Your task to perform on an android device: choose inbox layout in the gmail app Image 0: 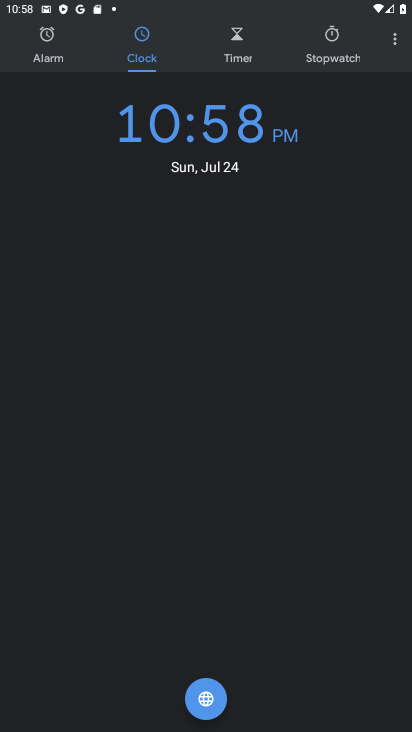
Step 0: press home button
Your task to perform on an android device: choose inbox layout in the gmail app Image 1: 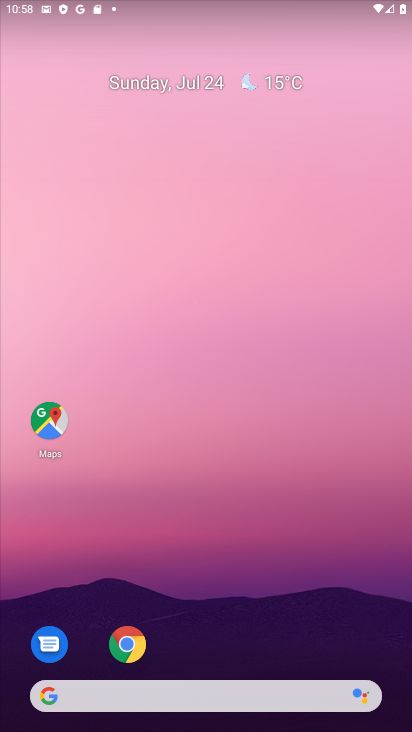
Step 1: drag from (224, 721) to (222, 68)
Your task to perform on an android device: choose inbox layout in the gmail app Image 2: 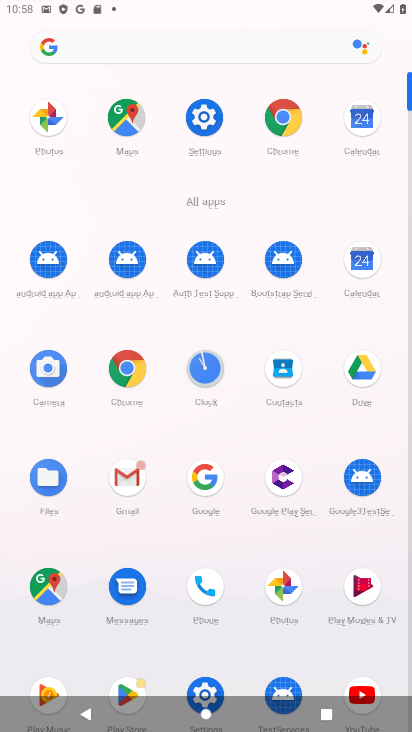
Step 2: click (125, 474)
Your task to perform on an android device: choose inbox layout in the gmail app Image 3: 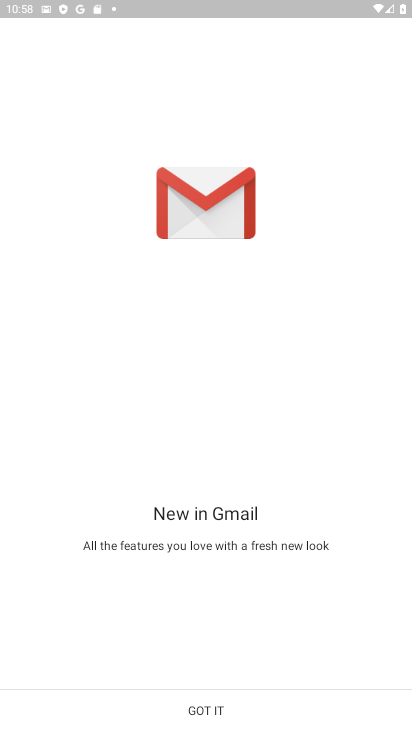
Step 3: click (203, 709)
Your task to perform on an android device: choose inbox layout in the gmail app Image 4: 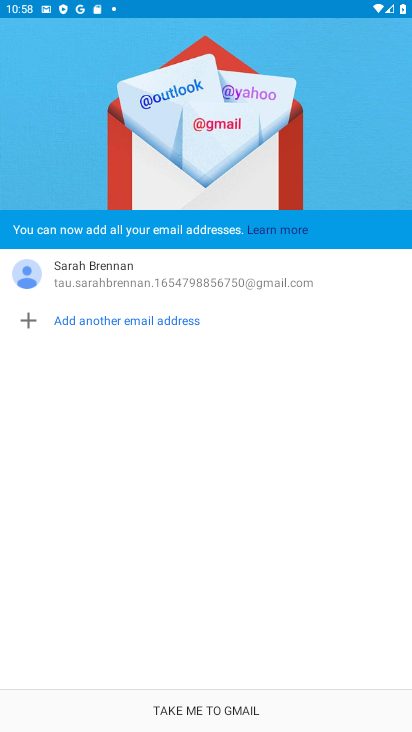
Step 4: click (201, 707)
Your task to perform on an android device: choose inbox layout in the gmail app Image 5: 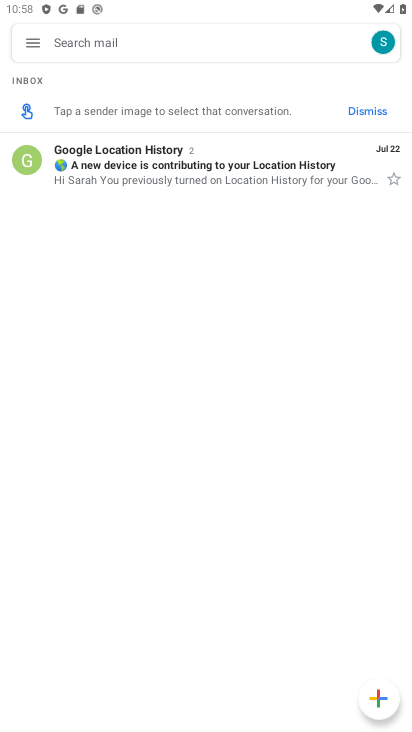
Step 5: click (34, 34)
Your task to perform on an android device: choose inbox layout in the gmail app Image 6: 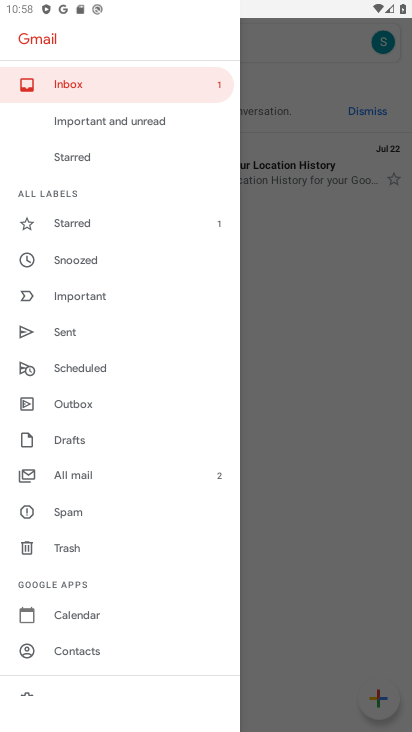
Step 6: drag from (76, 633) to (70, 319)
Your task to perform on an android device: choose inbox layout in the gmail app Image 7: 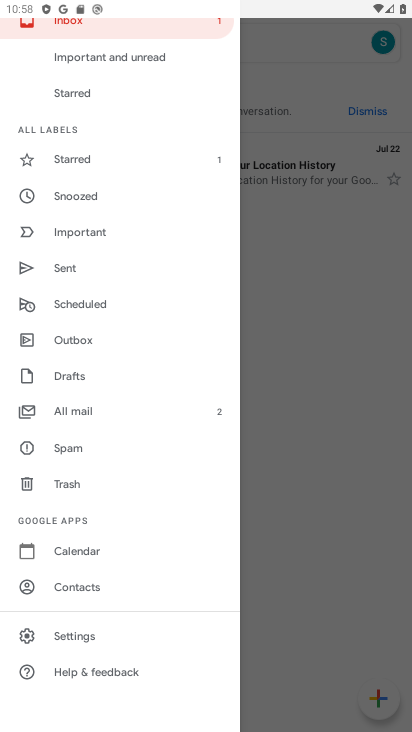
Step 7: click (59, 631)
Your task to perform on an android device: choose inbox layout in the gmail app Image 8: 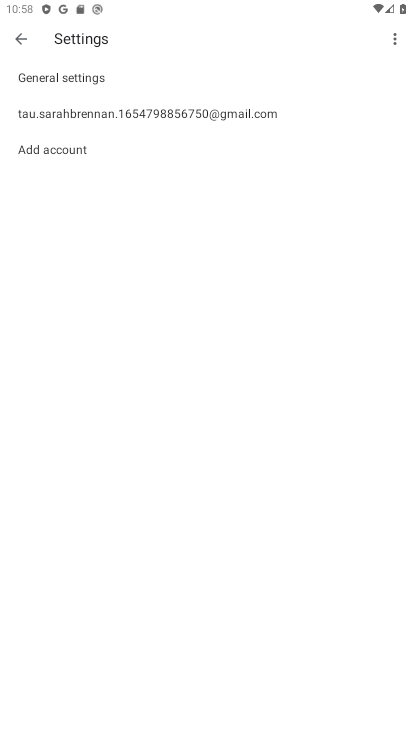
Step 8: click (149, 107)
Your task to perform on an android device: choose inbox layout in the gmail app Image 9: 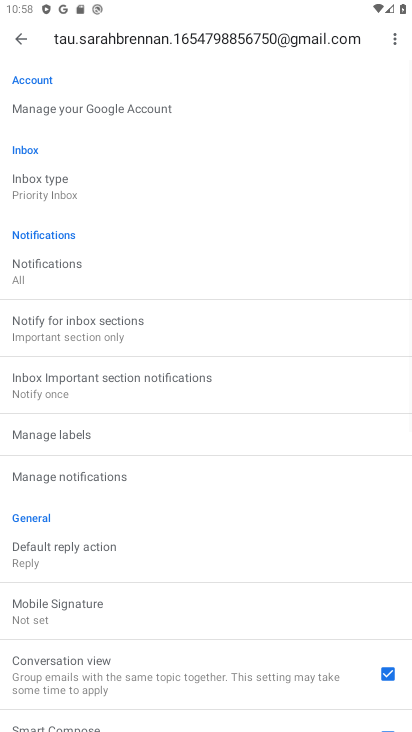
Step 9: click (37, 181)
Your task to perform on an android device: choose inbox layout in the gmail app Image 10: 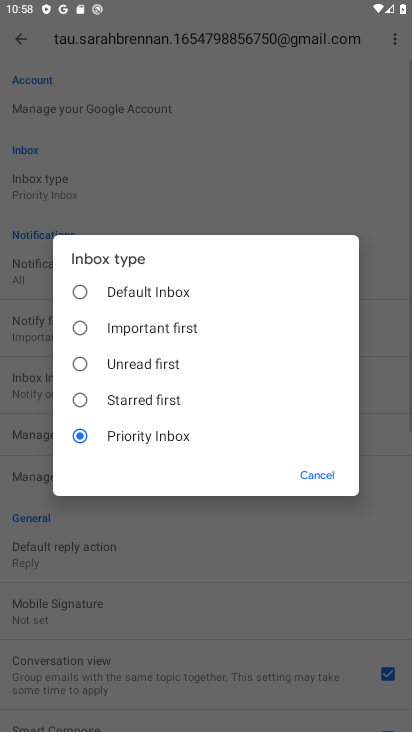
Step 10: click (79, 288)
Your task to perform on an android device: choose inbox layout in the gmail app Image 11: 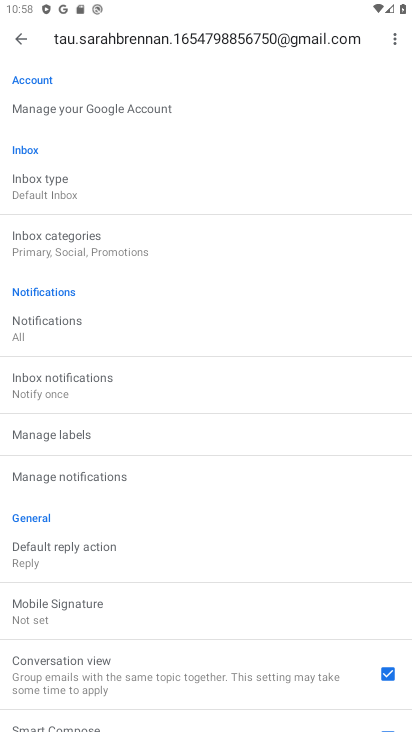
Step 11: task complete